Your task to perform on an android device: toggle show notifications on the lock screen Image 0: 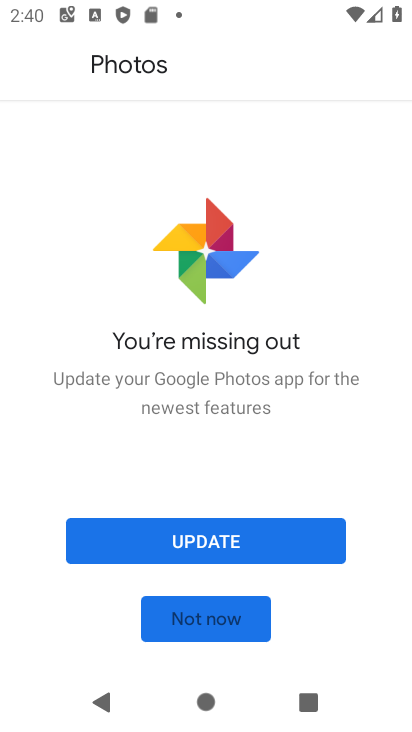
Step 0: press home button
Your task to perform on an android device: toggle show notifications on the lock screen Image 1: 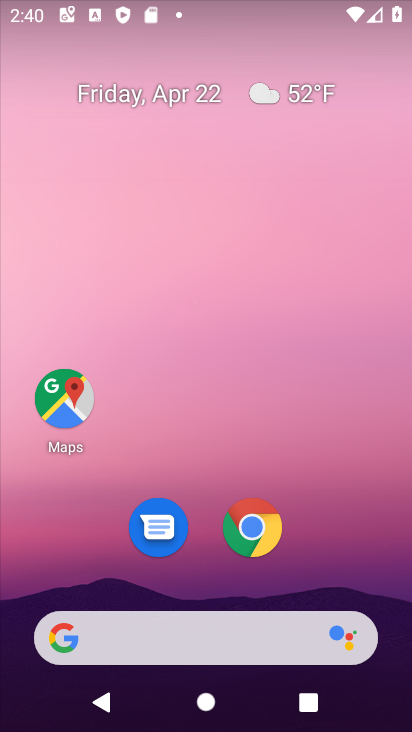
Step 1: drag from (405, 501) to (343, 95)
Your task to perform on an android device: toggle show notifications on the lock screen Image 2: 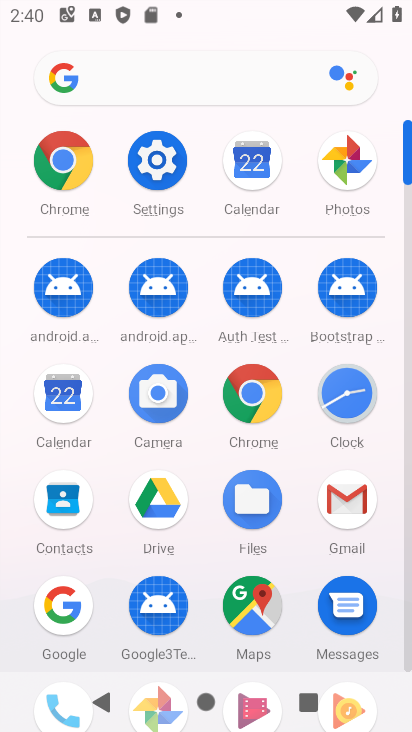
Step 2: click (163, 156)
Your task to perform on an android device: toggle show notifications on the lock screen Image 3: 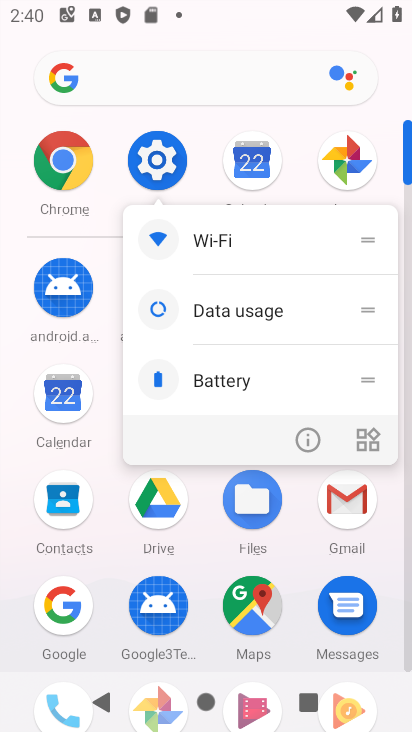
Step 3: click (165, 155)
Your task to perform on an android device: toggle show notifications on the lock screen Image 4: 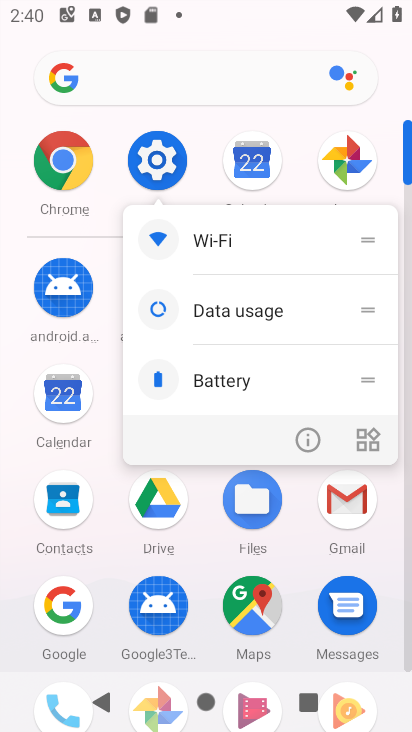
Step 4: click (165, 157)
Your task to perform on an android device: toggle show notifications on the lock screen Image 5: 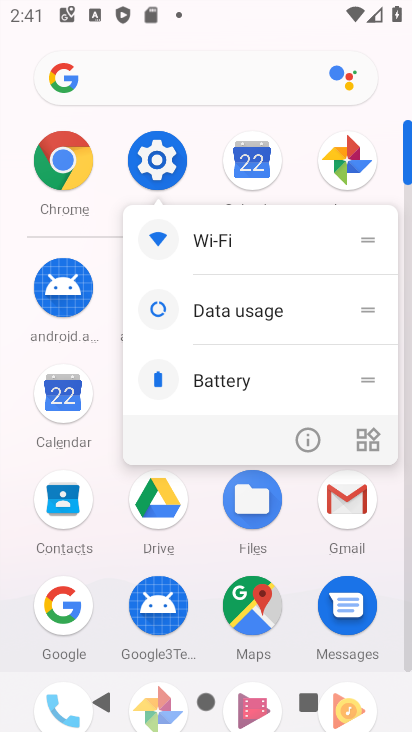
Step 5: click (165, 156)
Your task to perform on an android device: toggle show notifications on the lock screen Image 6: 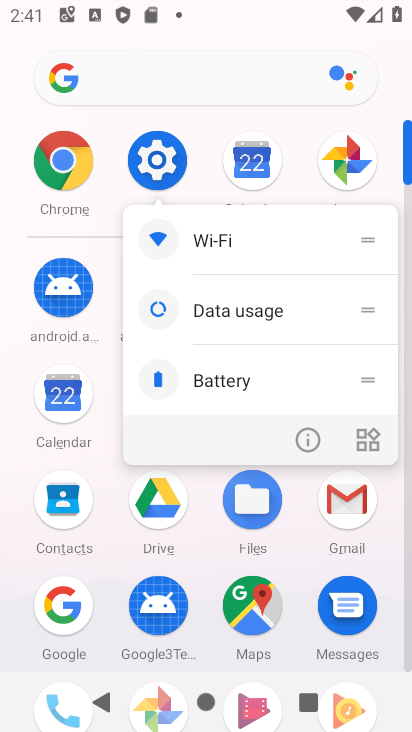
Step 6: click (165, 156)
Your task to perform on an android device: toggle show notifications on the lock screen Image 7: 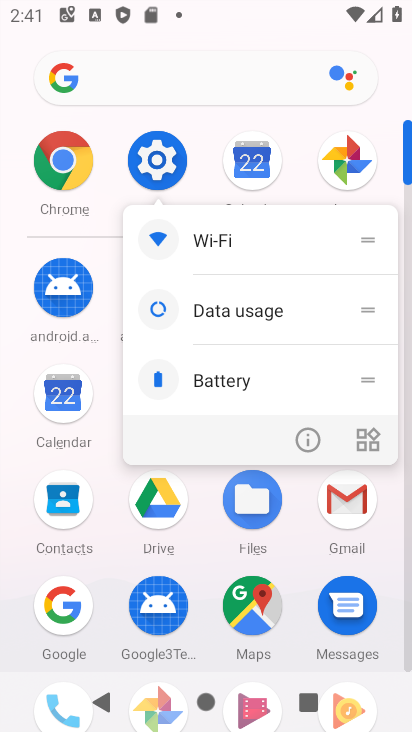
Step 7: click (169, 156)
Your task to perform on an android device: toggle show notifications on the lock screen Image 8: 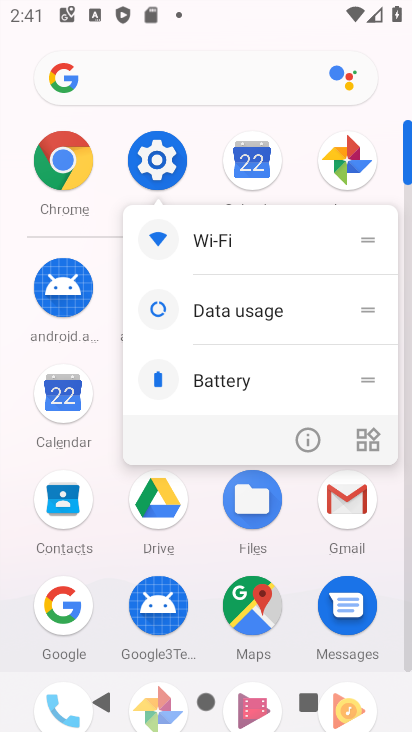
Step 8: click (169, 156)
Your task to perform on an android device: toggle show notifications on the lock screen Image 9: 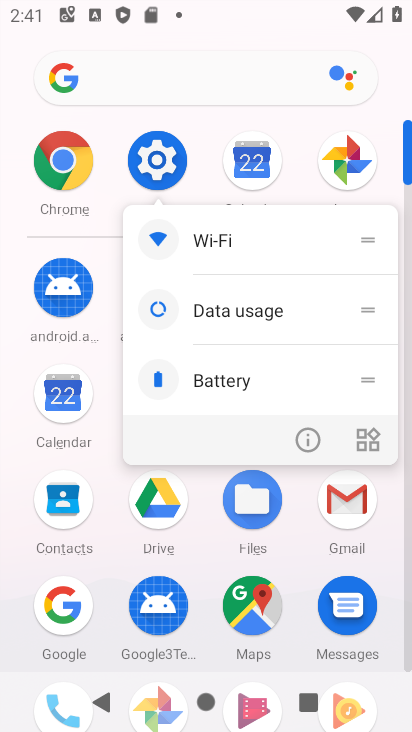
Step 9: click (169, 156)
Your task to perform on an android device: toggle show notifications on the lock screen Image 10: 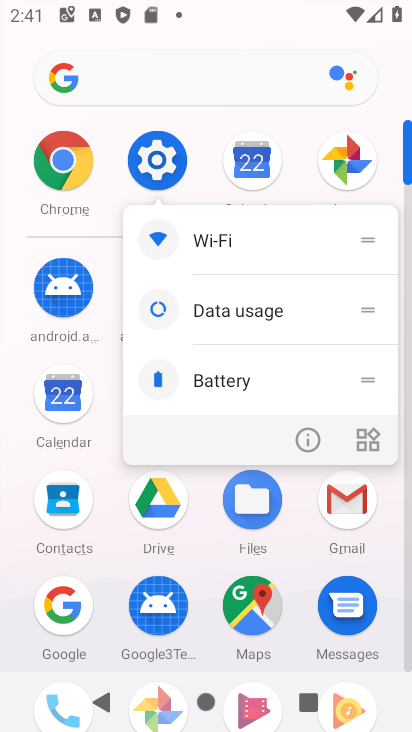
Step 10: click (169, 156)
Your task to perform on an android device: toggle show notifications on the lock screen Image 11: 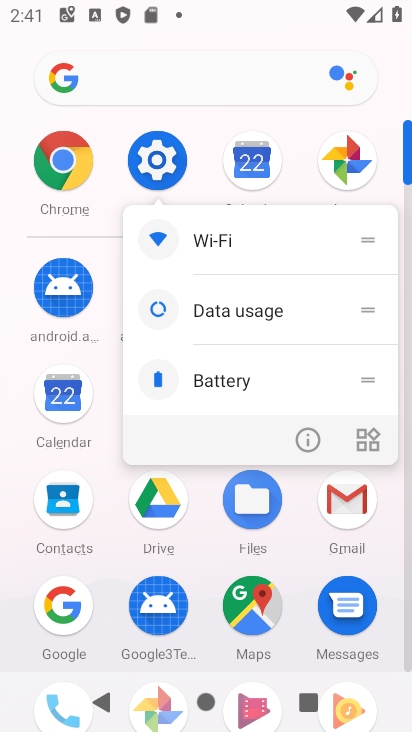
Step 11: click (169, 158)
Your task to perform on an android device: toggle show notifications on the lock screen Image 12: 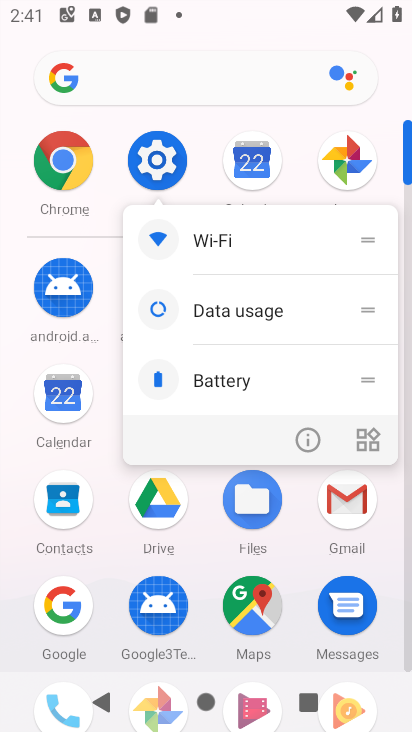
Step 12: click (169, 158)
Your task to perform on an android device: toggle show notifications on the lock screen Image 13: 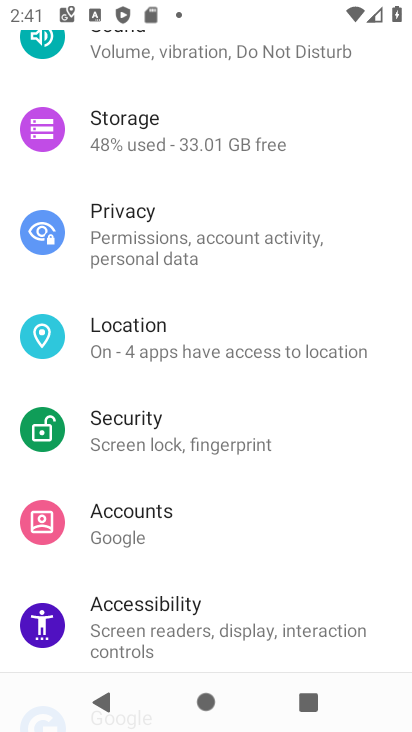
Step 13: drag from (205, 278) to (302, 593)
Your task to perform on an android device: toggle show notifications on the lock screen Image 14: 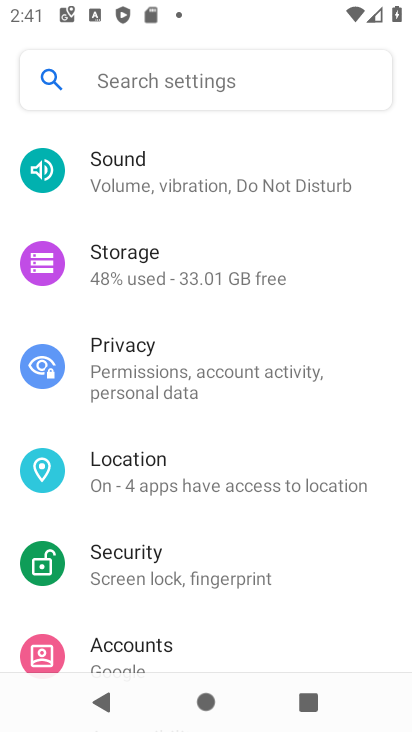
Step 14: drag from (213, 213) to (307, 568)
Your task to perform on an android device: toggle show notifications on the lock screen Image 15: 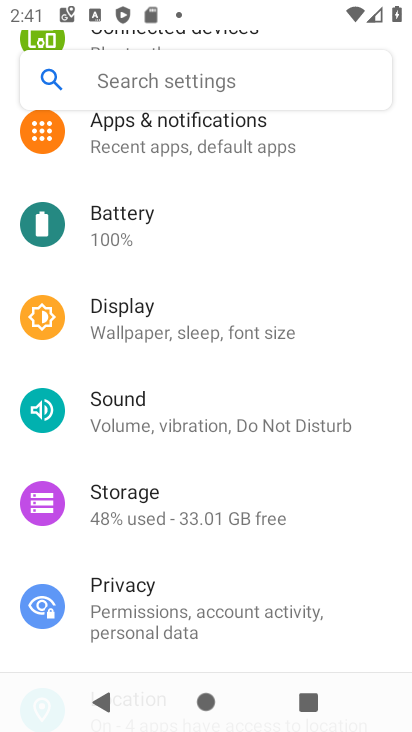
Step 15: drag from (193, 241) to (238, 524)
Your task to perform on an android device: toggle show notifications on the lock screen Image 16: 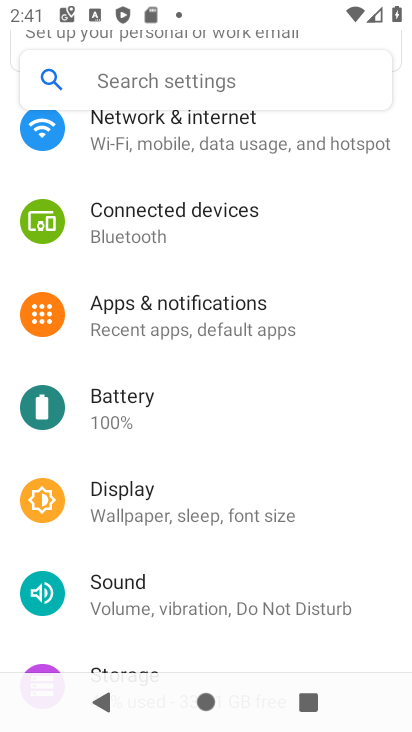
Step 16: click (170, 318)
Your task to perform on an android device: toggle show notifications on the lock screen Image 17: 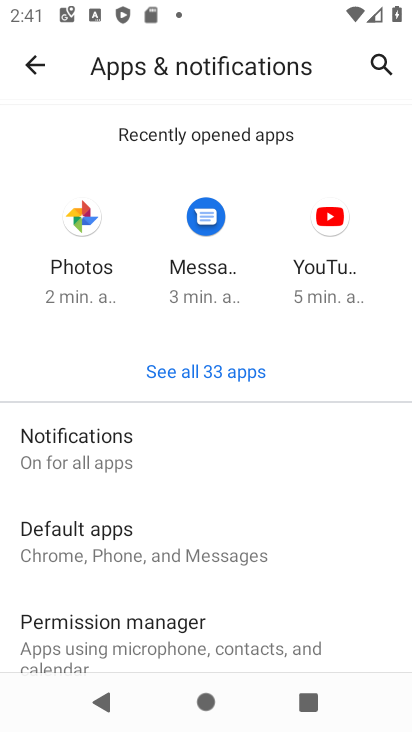
Step 17: click (84, 457)
Your task to perform on an android device: toggle show notifications on the lock screen Image 18: 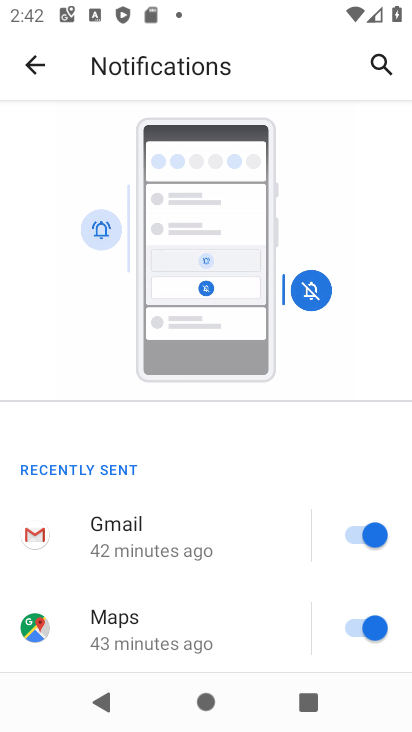
Step 18: drag from (170, 550) to (155, 221)
Your task to perform on an android device: toggle show notifications on the lock screen Image 19: 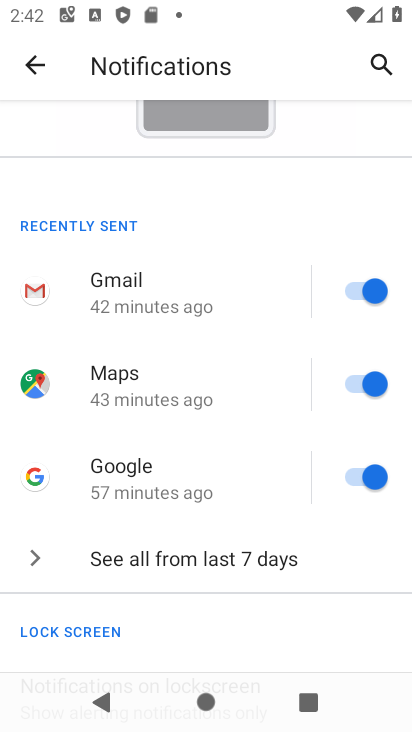
Step 19: drag from (193, 455) to (157, 233)
Your task to perform on an android device: toggle show notifications on the lock screen Image 20: 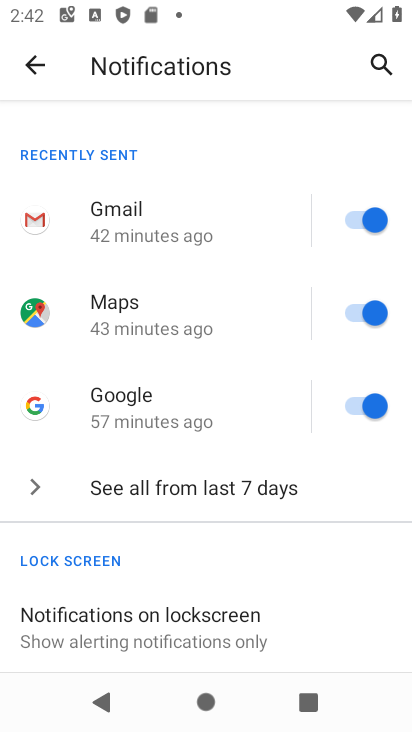
Step 20: drag from (201, 482) to (214, 169)
Your task to perform on an android device: toggle show notifications on the lock screen Image 21: 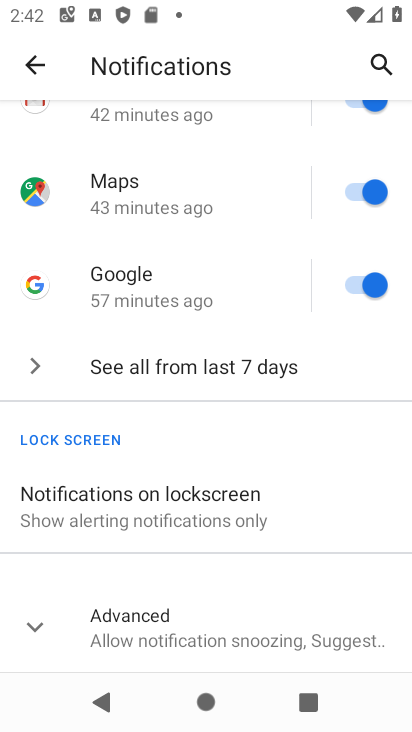
Step 21: click (174, 515)
Your task to perform on an android device: toggle show notifications on the lock screen Image 22: 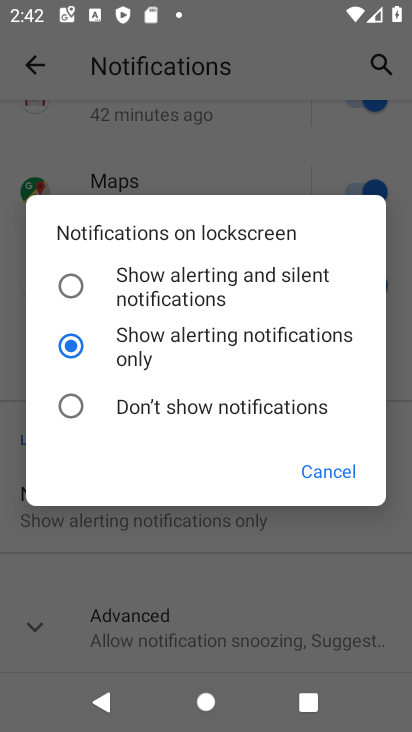
Step 22: click (71, 284)
Your task to perform on an android device: toggle show notifications on the lock screen Image 23: 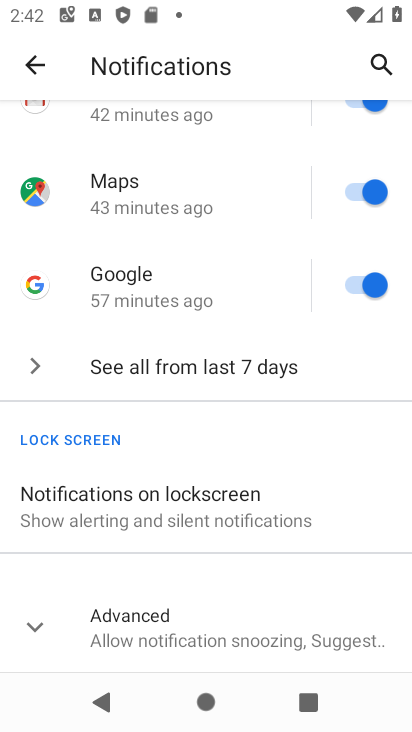
Step 23: task complete